Your task to perform on an android device: Open the Play Movies app and select the watchlist tab. Image 0: 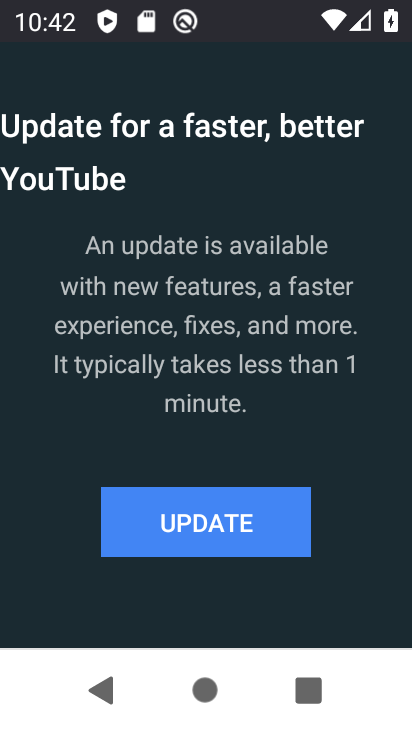
Step 0: press home button
Your task to perform on an android device: Open the Play Movies app and select the watchlist tab. Image 1: 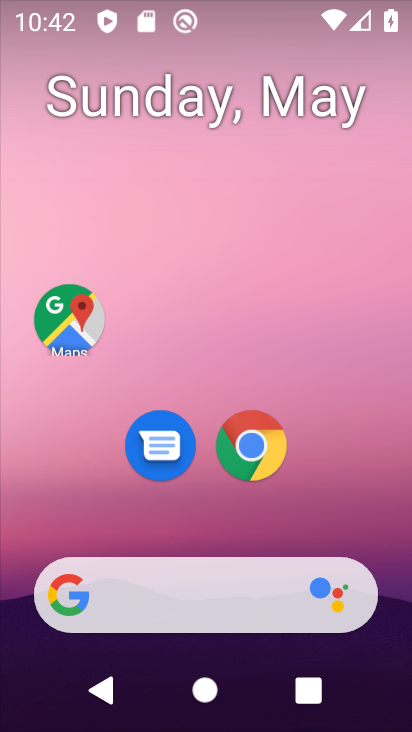
Step 1: drag from (356, 478) to (215, 18)
Your task to perform on an android device: Open the Play Movies app and select the watchlist tab. Image 2: 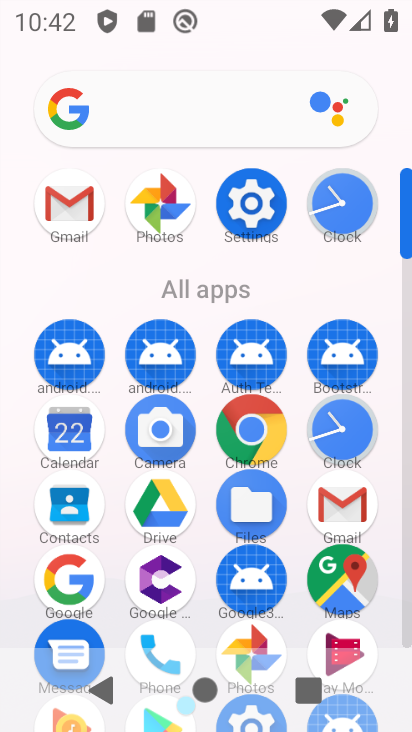
Step 2: click (349, 632)
Your task to perform on an android device: Open the Play Movies app and select the watchlist tab. Image 3: 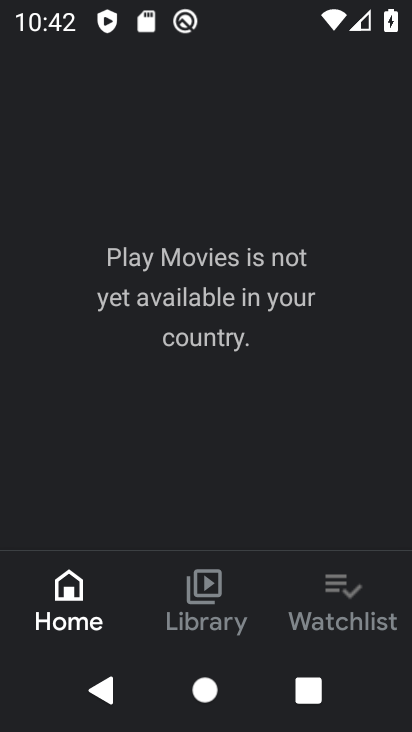
Step 3: click (339, 581)
Your task to perform on an android device: Open the Play Movies app and select the watchlist tab. Image 4: 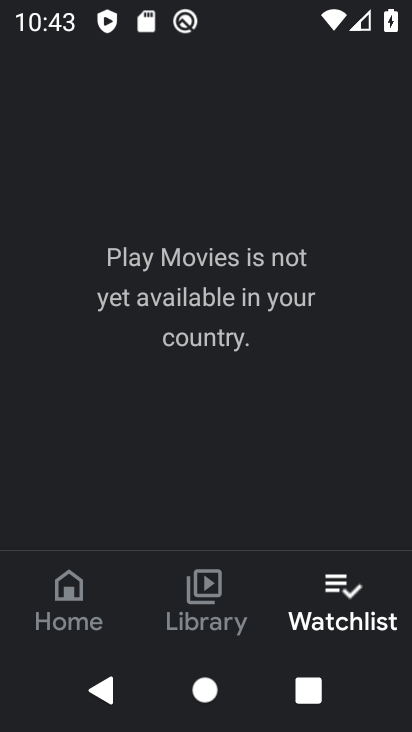
Step 4: task complete